Your task to perform on an android device: Open the calendar and show me this week's events Image 0: 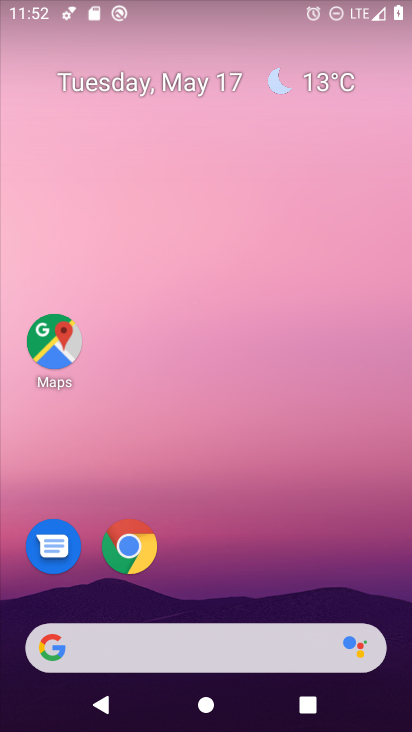
Step 0: drag from (276, 533) to (307, 25)
Your task to perform on an android device: Open the calendar and show me this week's events Image 1: 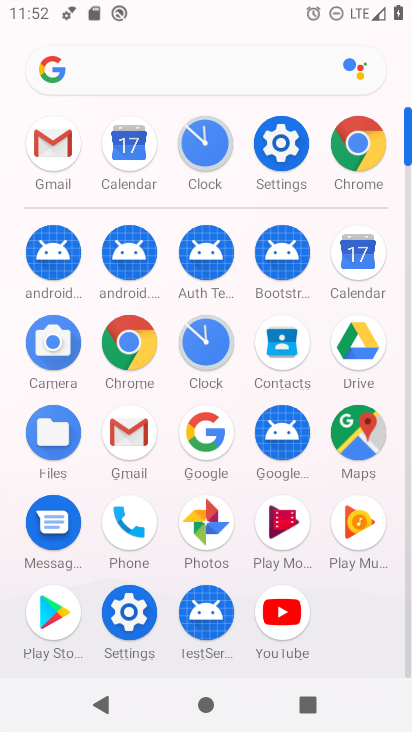
Step 1: click (130, 152)
Your task to perform on an android device: Open the calendar and show me this week's events Image 2: 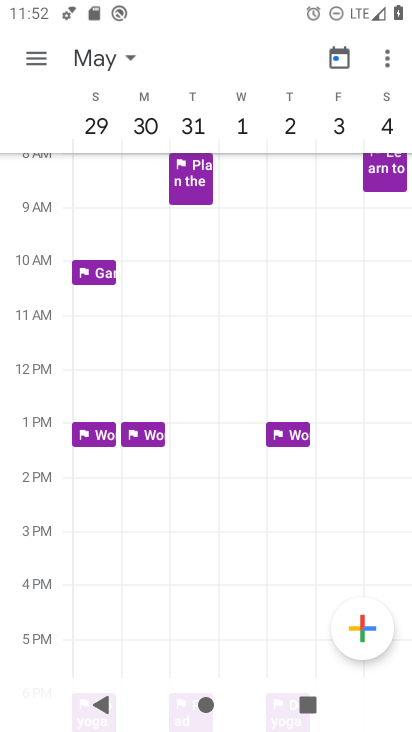
Step 2: click (129, 58)
Your task to perform on an android device: Open the calendar and show me this week's events Image 3: 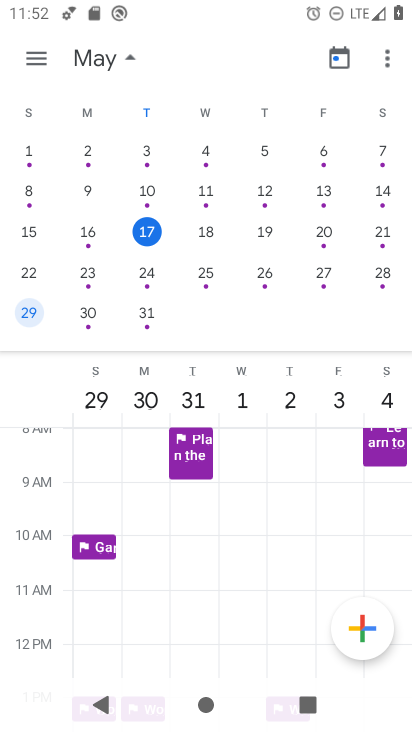
Step 3: click (147, 240)
Your task to perform on an android device: Open the calendar and show me this week's events Image 4: 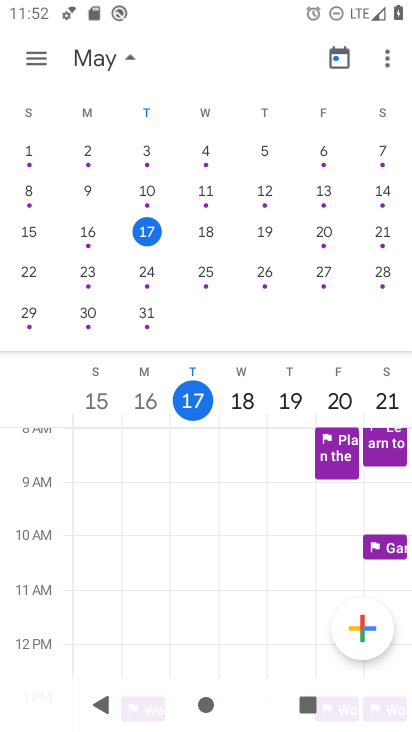
Step 4: task complete